Your task to perform on an android device: turn off airplane mode Image 0: 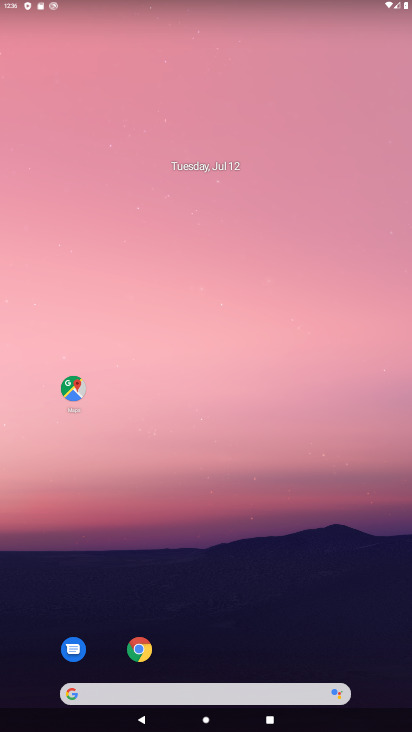
Step 0: drag from (214, 650) to (183, 418)
Your task to perform on an android device: turn off airplane mode Image 1: 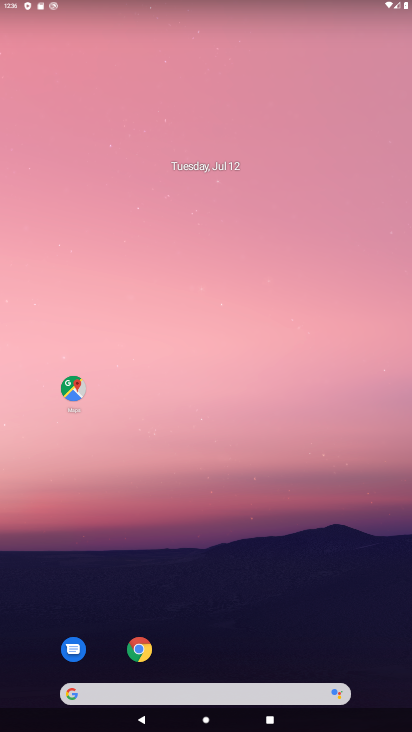
Step 1: drag from (206, 635) to (207, 154)
Your task to perform on an android device: turn off airplane mode Image 2: 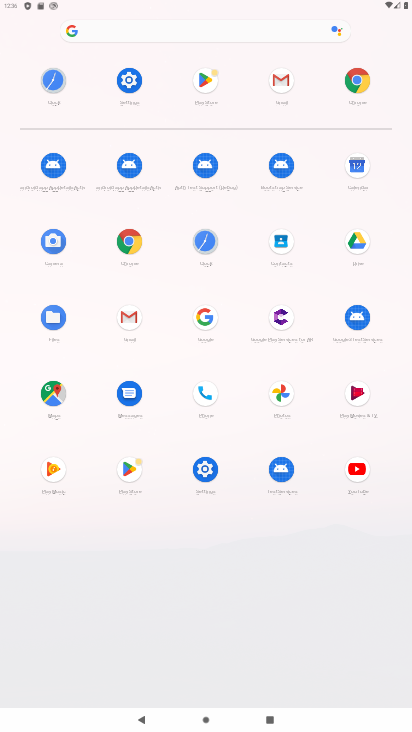
Step 2: click (128, 74)
Your task to perform on an android device: turn off airplane mode Image 3: 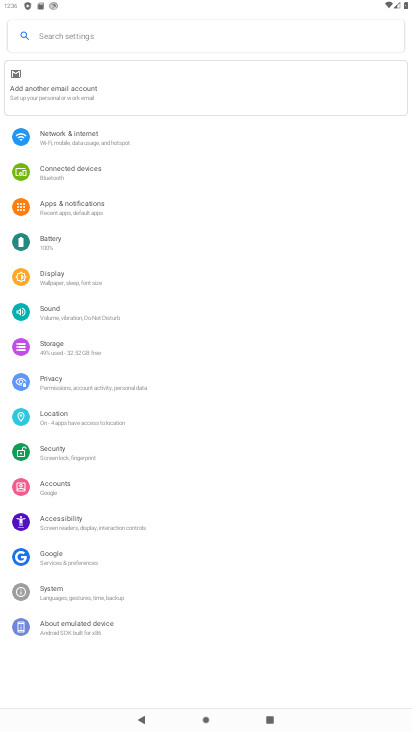
Step 3: click (116, 157)
Your task to perform on an android device: turn off airplane mode Image 4: 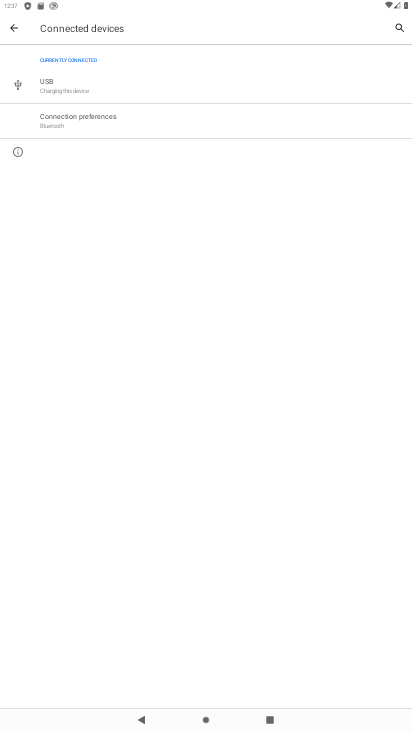
Step 4: task complete